Your task to perform on an android device: Open network settings Image 0: 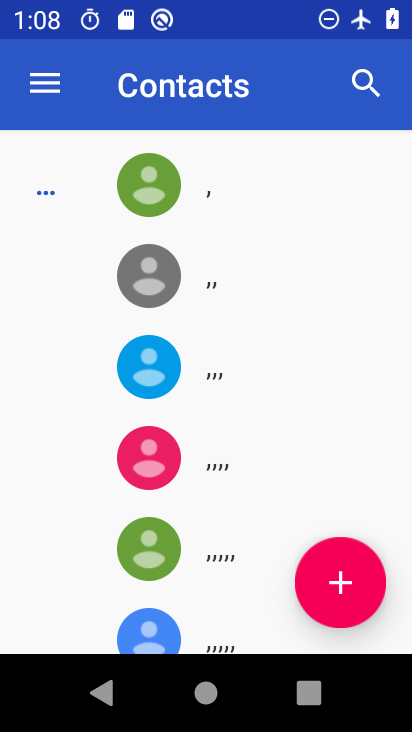
Step 0: press home button
Your task to perform on an android device: Open network settings Image 1: 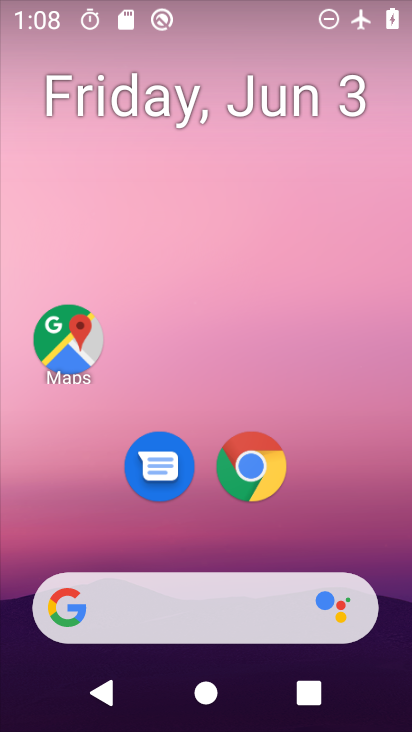
Step 1: drag from (207, 539) to (209, 112)
Your task to perform on an android device: Open network settings Image 2: 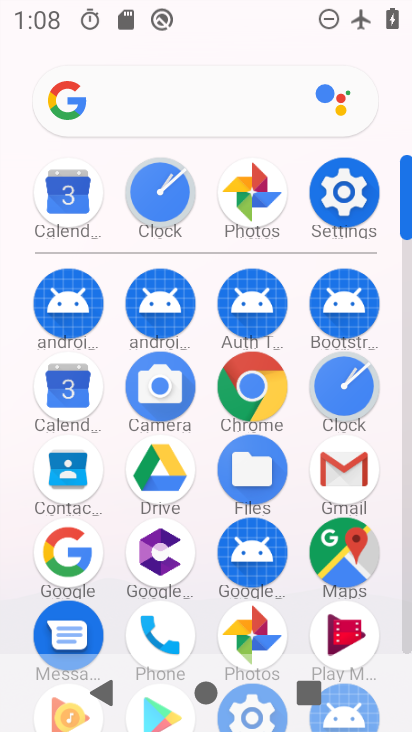
Step 2: click (351, 170)
Your task to perform on an android device: Open network settings Image 3: 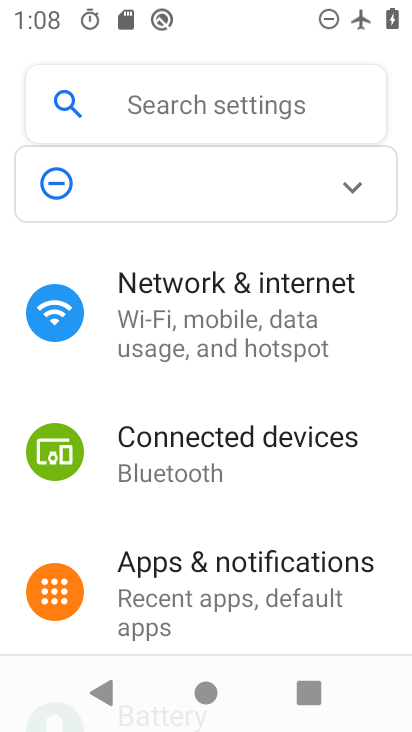
Step 3: click (204, 346)
Your task to perform on an android device: Open network settings Image 4: 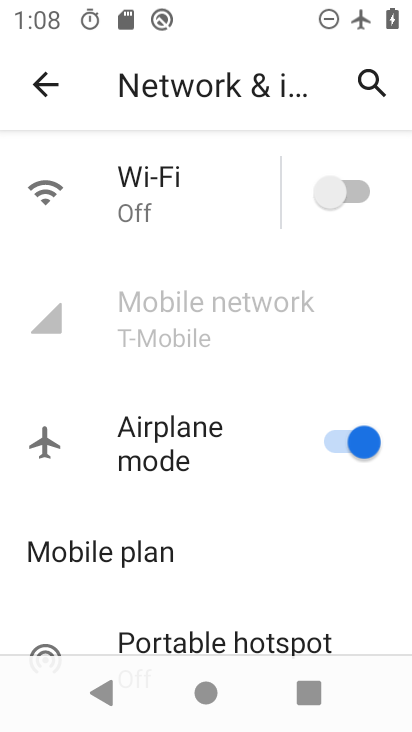
Step 4: task complete